Your task to perform on an android device: Open the calendar app, open the side menu, and click the "Day" option Image 0: 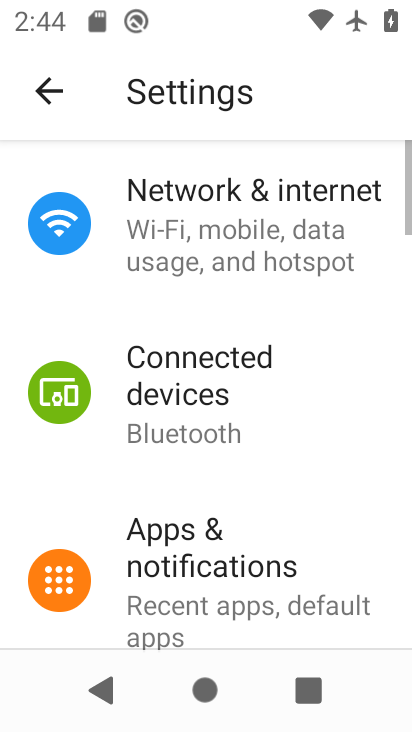
Step 0: press home button
Your task to perform on an android device: Open the calendar app, open the side menu, and click the "Day" option Image 1: 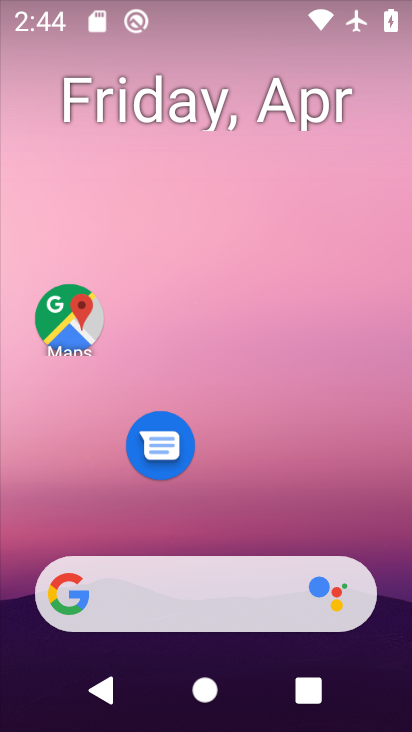
Step 1: drag from (290, 490) to (270, 134)
Your task to perform on an android device: Open the calendar app, open the side menu, and click the "Day" option Image 2: 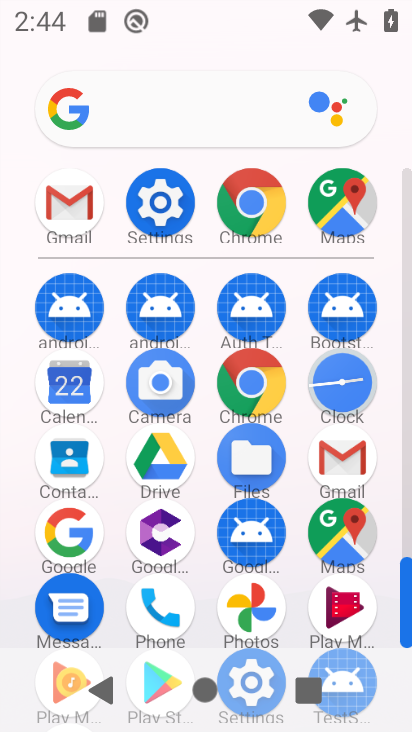
Step 2: click (54, 387)
Your task to perform on an android device: Open the calendar app, open the side menu, and click the "Day" option Image 3: 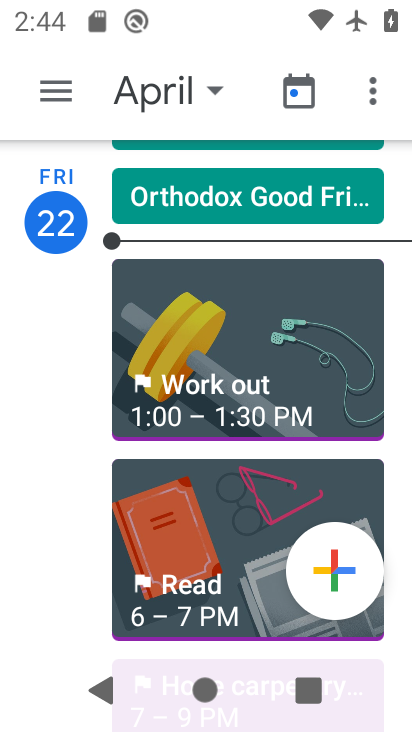
Step 3: click (55, 95)
Your task to perform on an android device: Open the calendar app, open the side menu, and click the "Day" option Image 4: 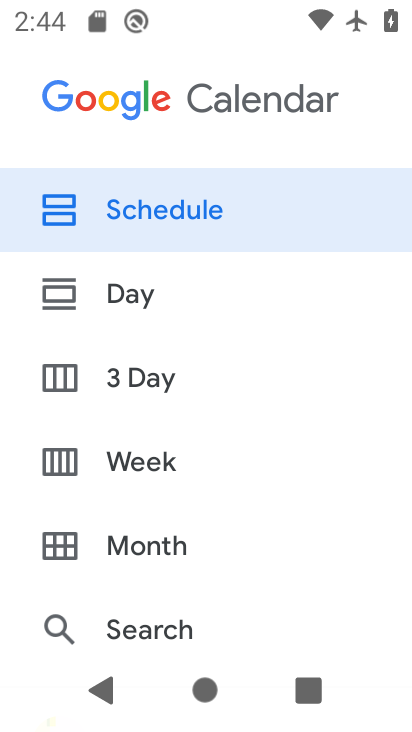
Step 4: click (97, 282)
Your task to perform on an android device: Open the calendar app, open the side menu, and click the "Day" option Image 5: 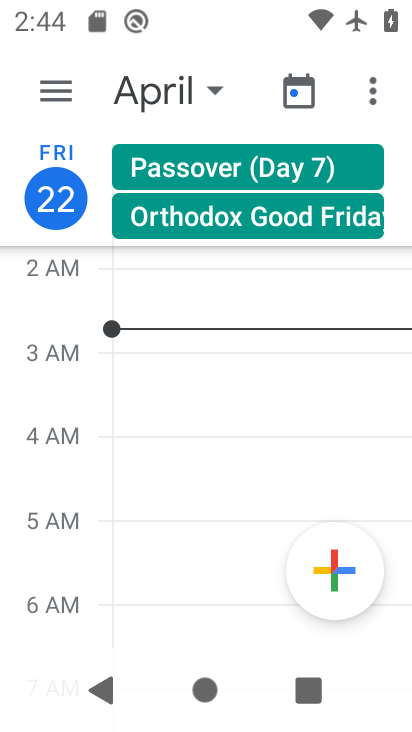
Step 5: task complete